Your task to perform on an android device: Open calendar and show me the second week of next month Image 0: 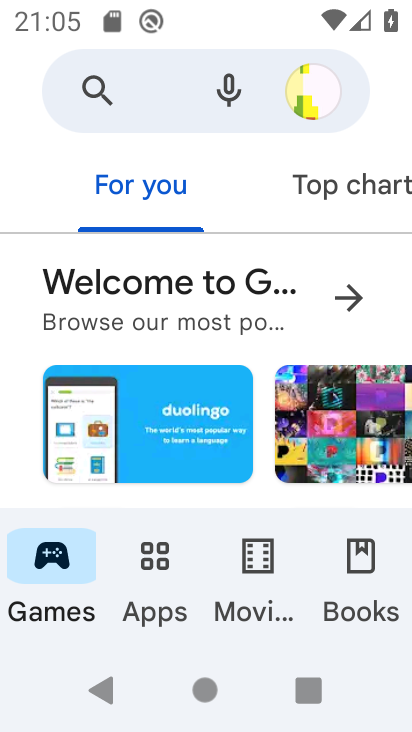
Step 0: press home button
Your task to perform on an android device: Open calendar and show me the second week of next month Image 1: 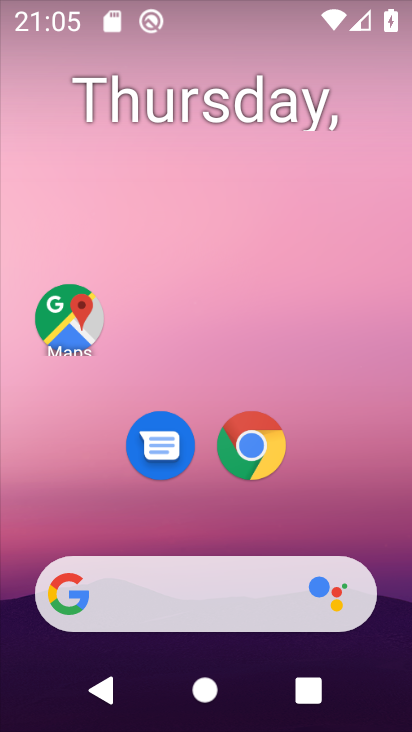
Step 1: drag from (242, 516) to (172, 118)
Your task to perform on an android device: Open calendar and show me the second week of next month Image 2: 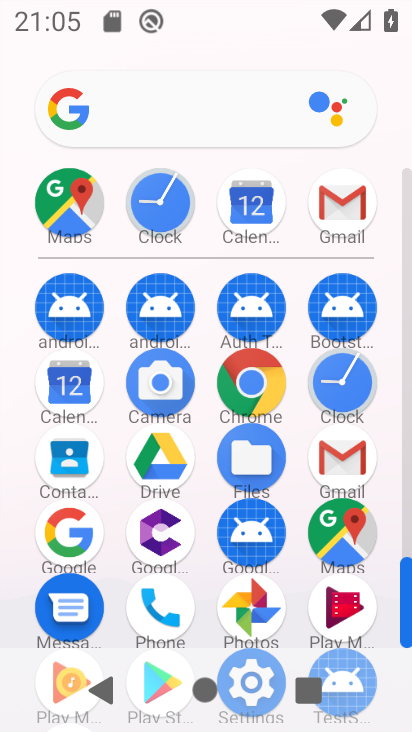
Step 2: click (260, 213)
Your task to perform on an android device: Open calendar and show me the second week of next month Image 3: 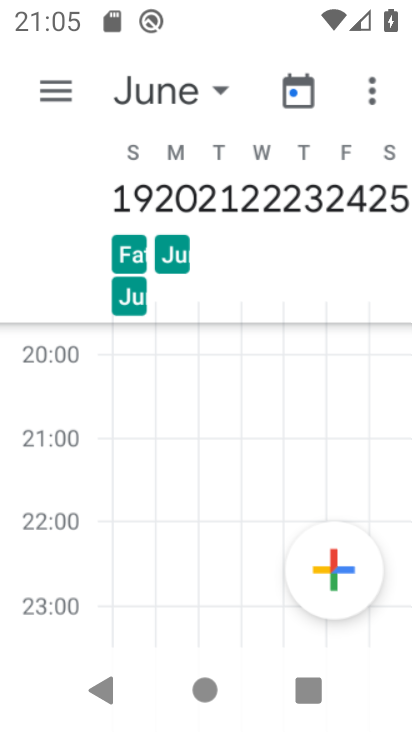
Step 3: task complete